Your task to perform on an android device: Open accessibility settings Image 0: 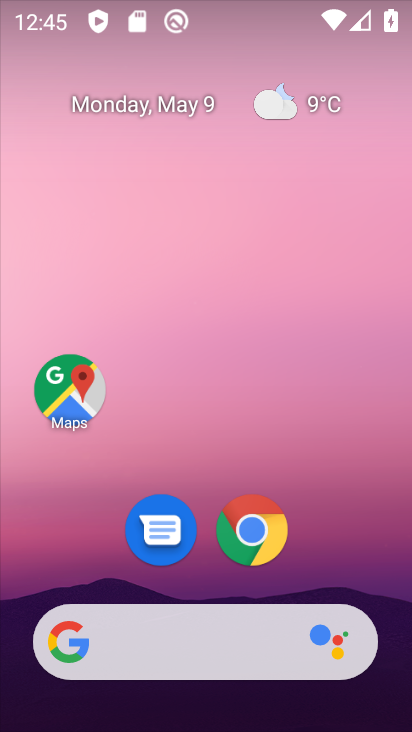
Step 0: drag from (274, 578) to (274, 240)
Your task to perform on an android device: Open accessibility settings Image 1: 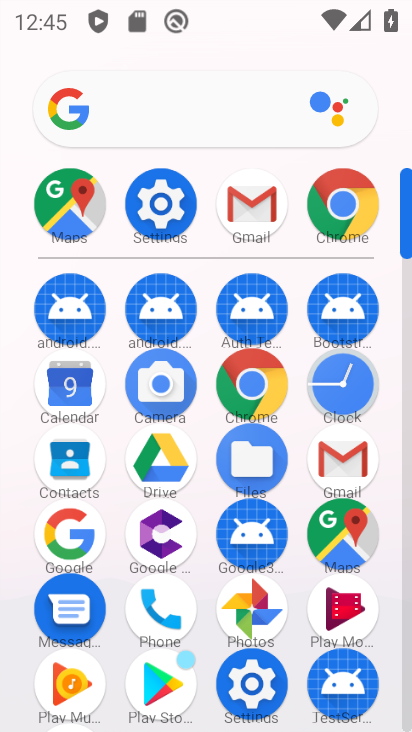
Step 1: click (163, 209)
Your task to perform on an android device: Open accessibility settings Image 2: 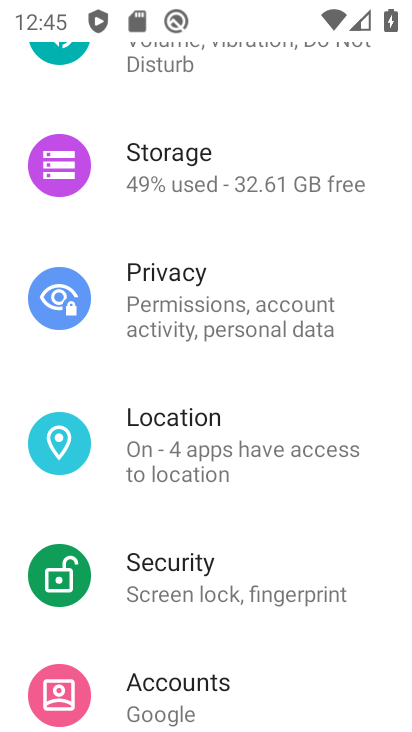
Step 2: drag from (246, 620) to (279, 225)
Your task to perform on an android device: Open accessibility settings Image 3: 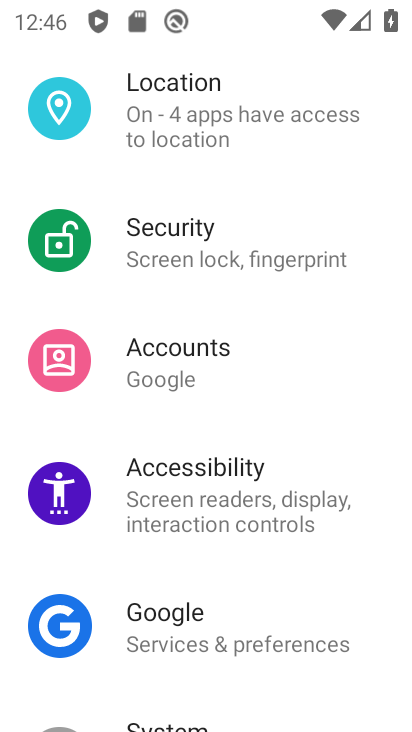
Step 3: click (203, 499)
Your task to perform on an android device: Open accessibility settings Image 4: 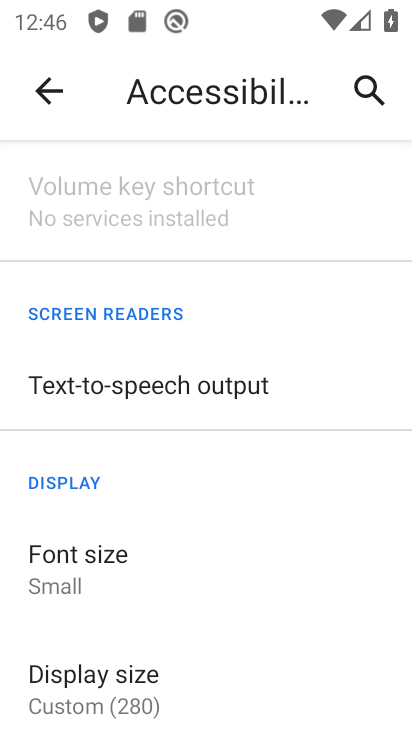
Step 4: task complete